Your task to perform on an android device: Turn off the flashlight Image 0: 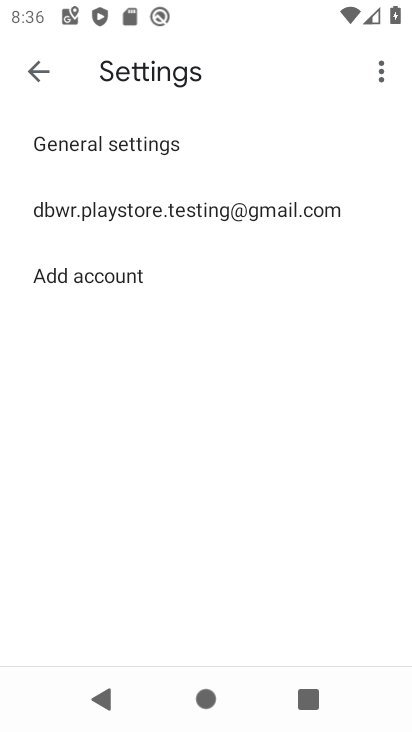
Step 0: press home button
Your task to perform on an android device: Turn off the flashlight Image 1: 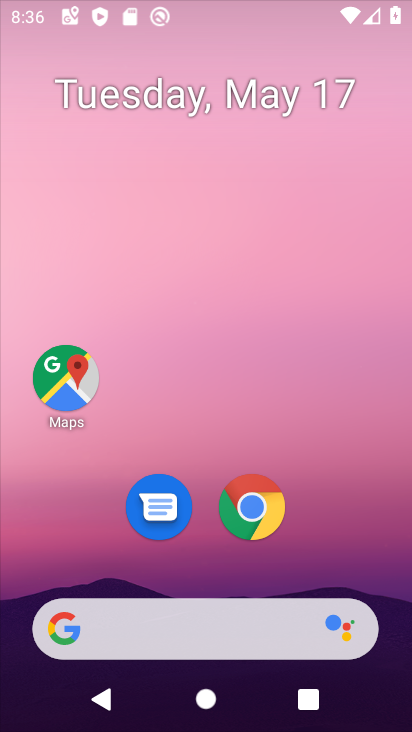
Step 1: task complete